Your task to perform on an android device: add a contact Image 0: 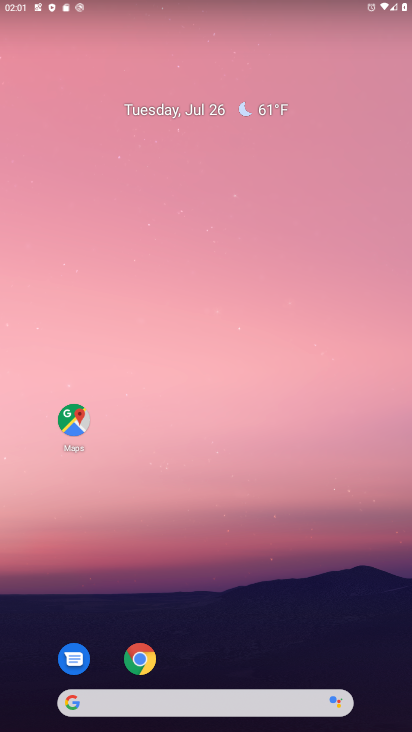
Step 0: drag from (239, 606) to (202, 88)
Your task to perform on an android device: add a contact Image 1: 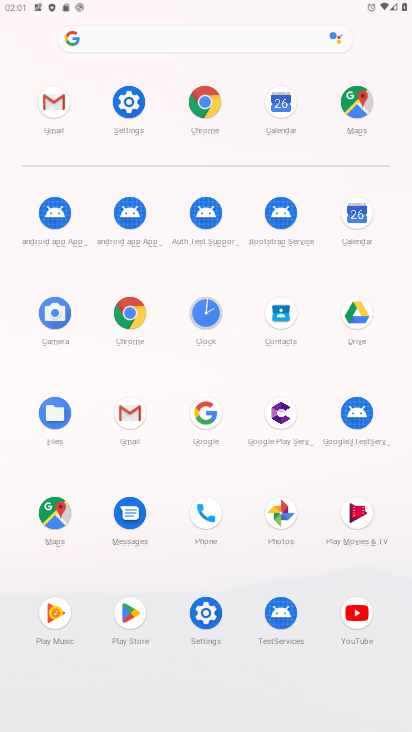
Step 1: click (282, 308)
Your task to perform on an android device: add a contact Image 2: 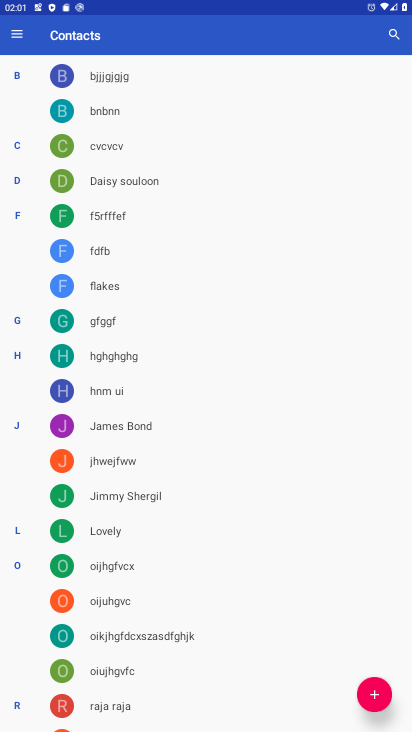
Step 2: click (369, 683)
Your task to perform on an android device: add a contact Image 3: 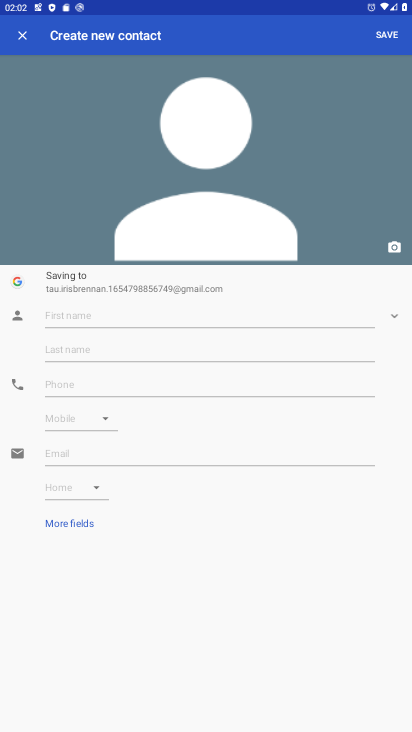
Step 3: click (198, 315)
Your task to perform on an android device: add a contact Image 4: 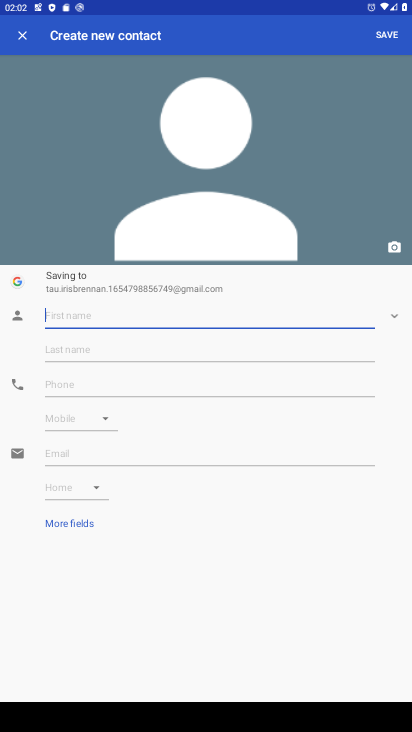
Step 4: type "basi"
Your task to perform on an android device: add a contact Image 5: 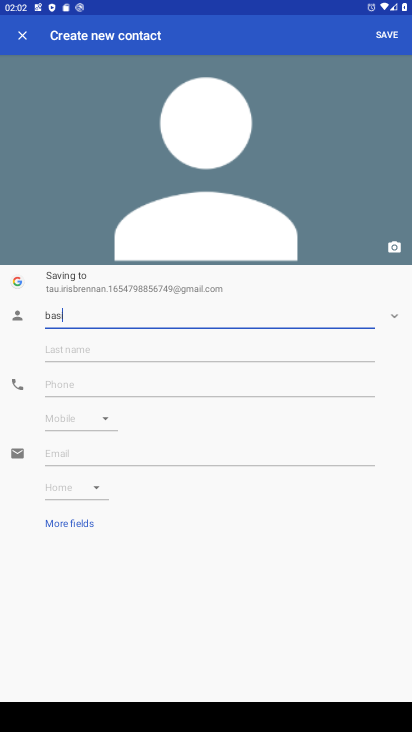
Step 5: click (378, 31)
Your task to perform on an android device: add a contact Image 6: 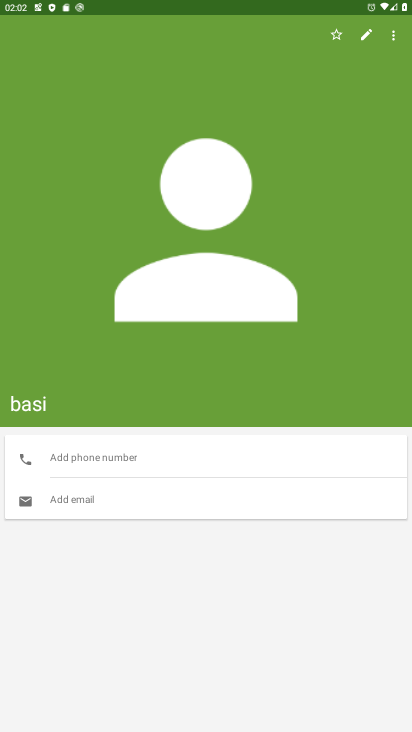
Step 6: task complete